Your task to perform on an android device: Add macbook air to the cart on newegg.com Image 0: 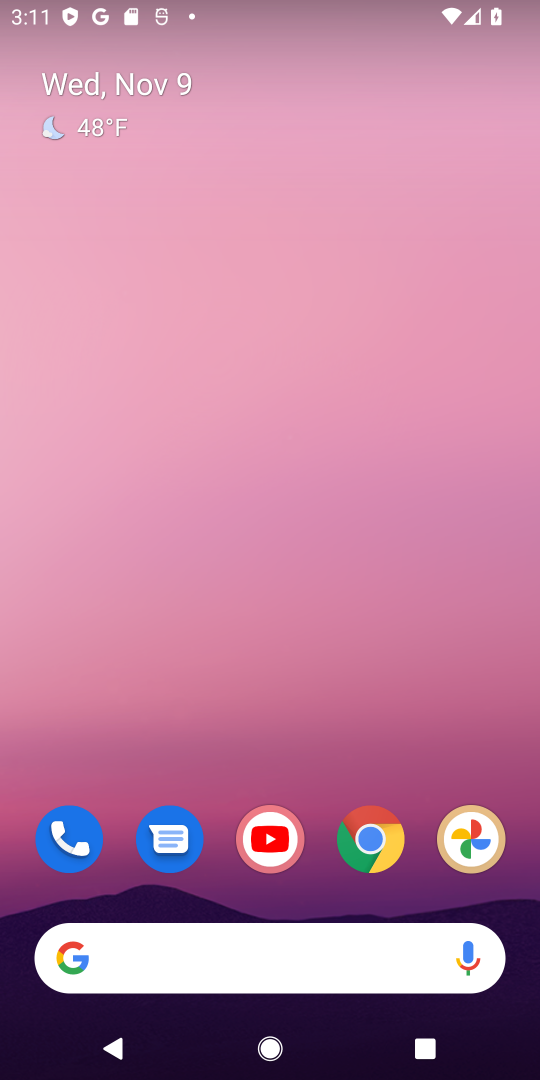
Step 0: drag from (313, 906) to (342, 144)
Your task to perform on an android device: Add macbook air to the cart on newegg.com Image 1: 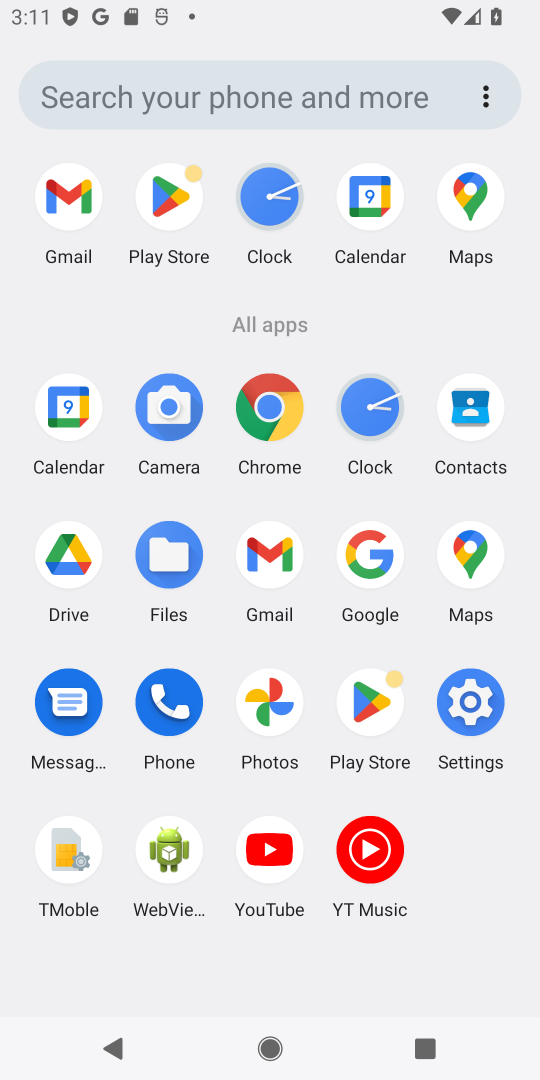
Step 1: click (267, 404)
Your task to perform on an android device: Add macbook air to the cart on newegg.com Image 2: 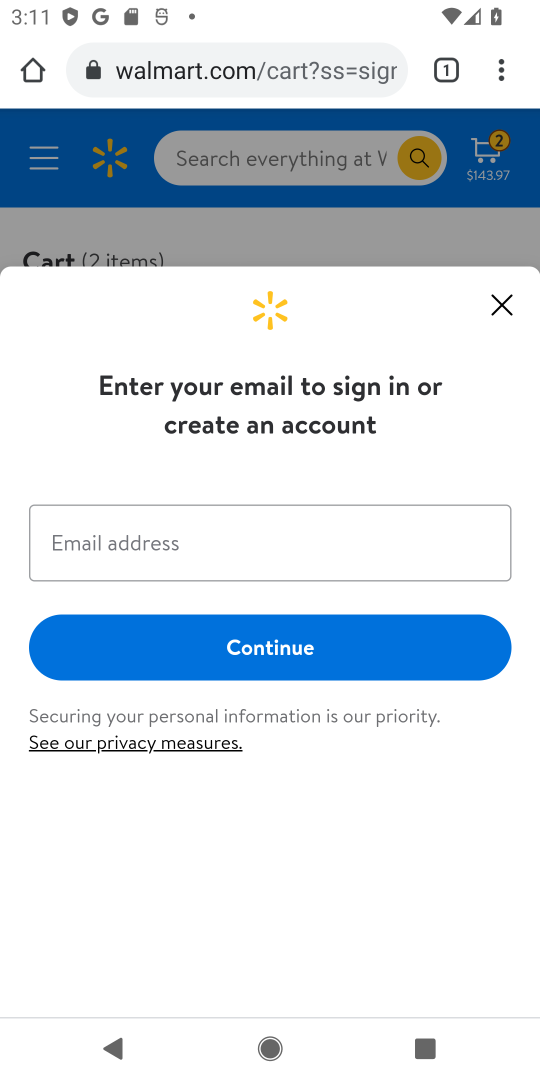
Step 2: click (285, 76)
Your task to perform on an android device: Add macbook air to the cart on newegg.com Image 3: 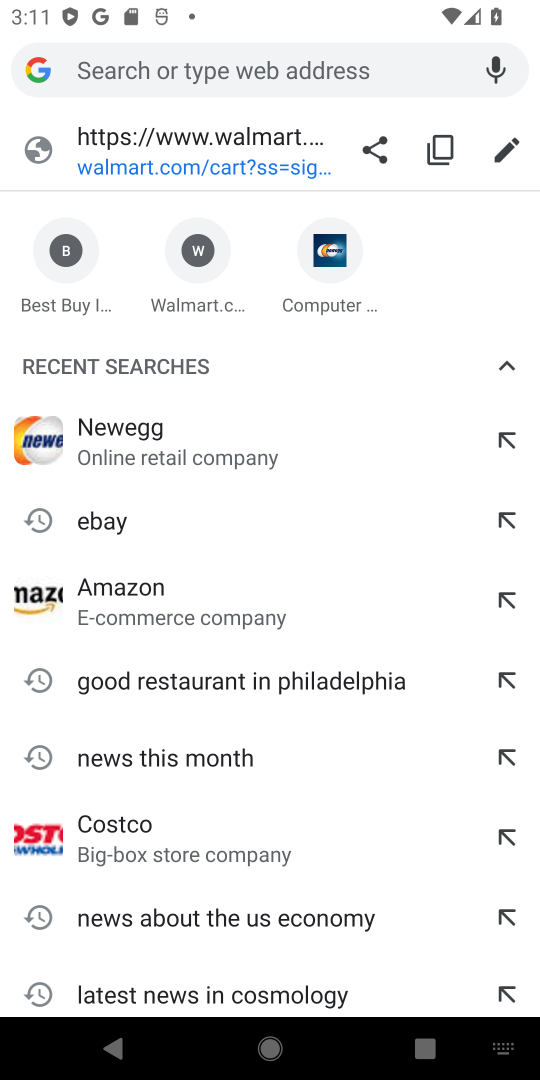
Step 3: type "newegg.com"
Your task to perform on an android device: Add macbook air to the cart on newegg.com Image 4: 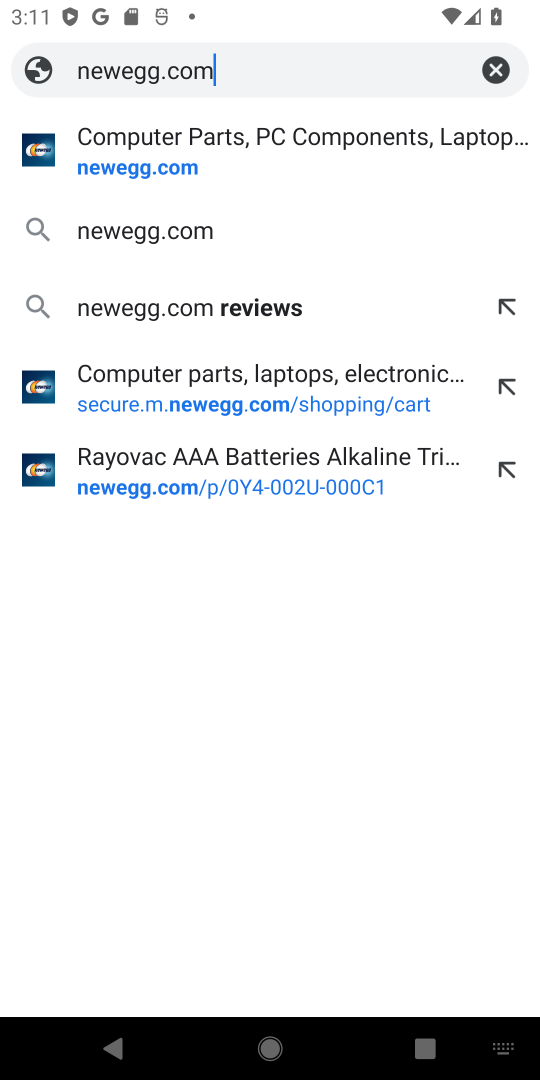
Step 4: press enter
Your task to perform on an android device: Add macbook air to the cart on newegg.com Image 5: 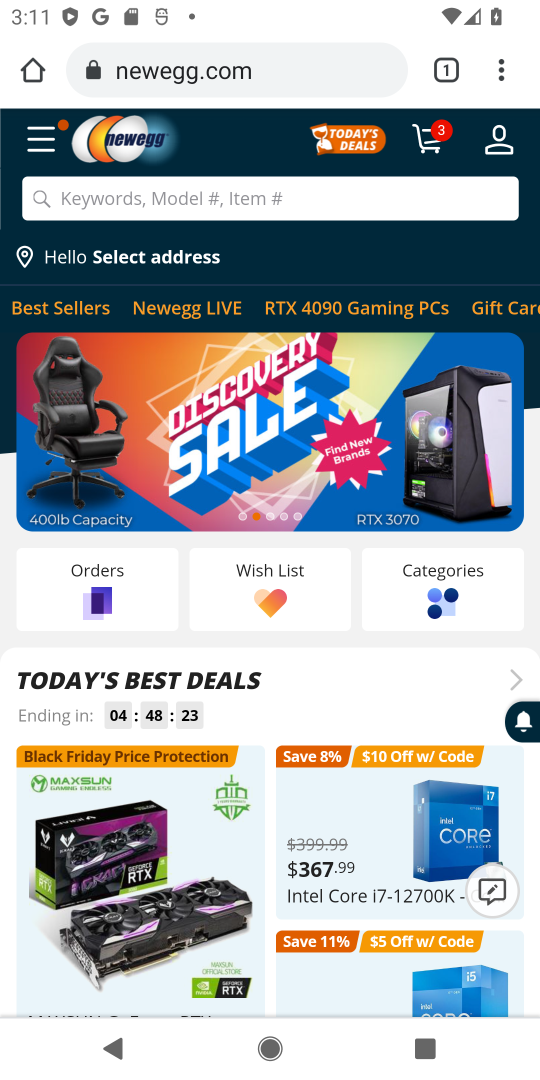
Step 5: click (326, 201)
Your task to perform on an android device: Add macbook air to the cart on newegg.com Image 6: 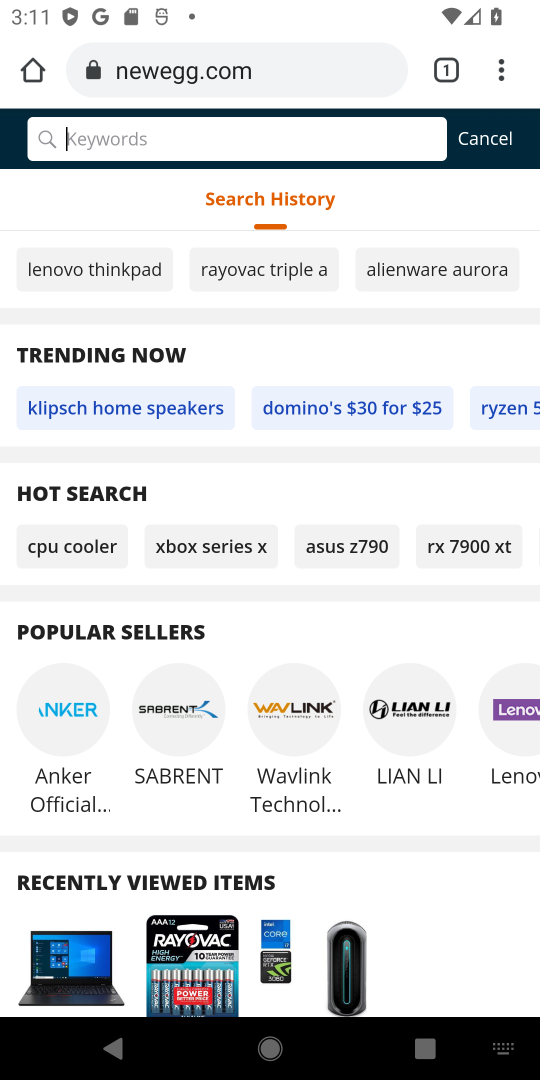
Step 6: type "macbook air"
Your task to perform on an android device: Add macbook air to the cart on newegg.com Image 7: 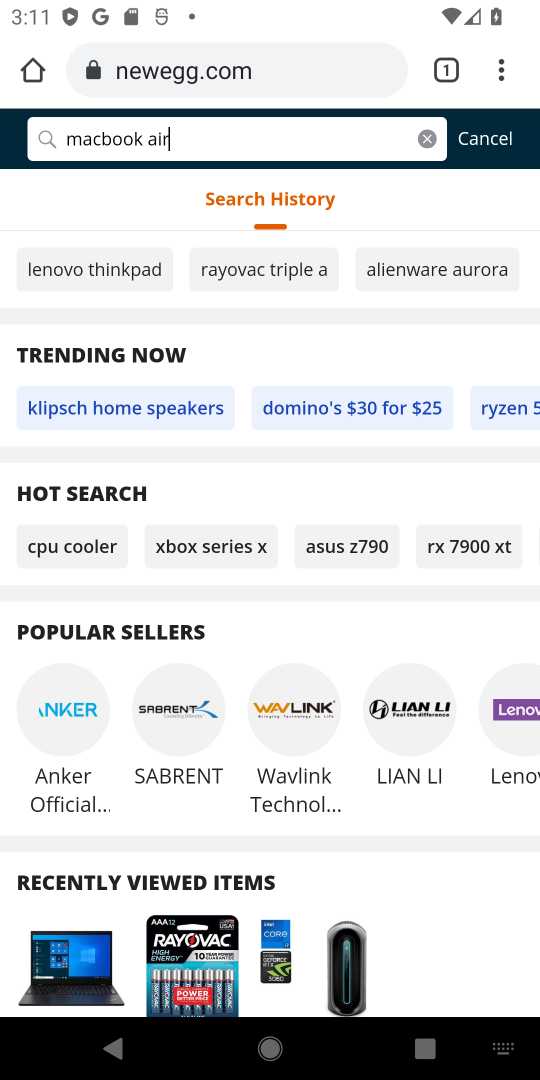
Step 7: press enter
Your task to perform on an android device: Add macbook air to the cart on newegg.com Image 8: 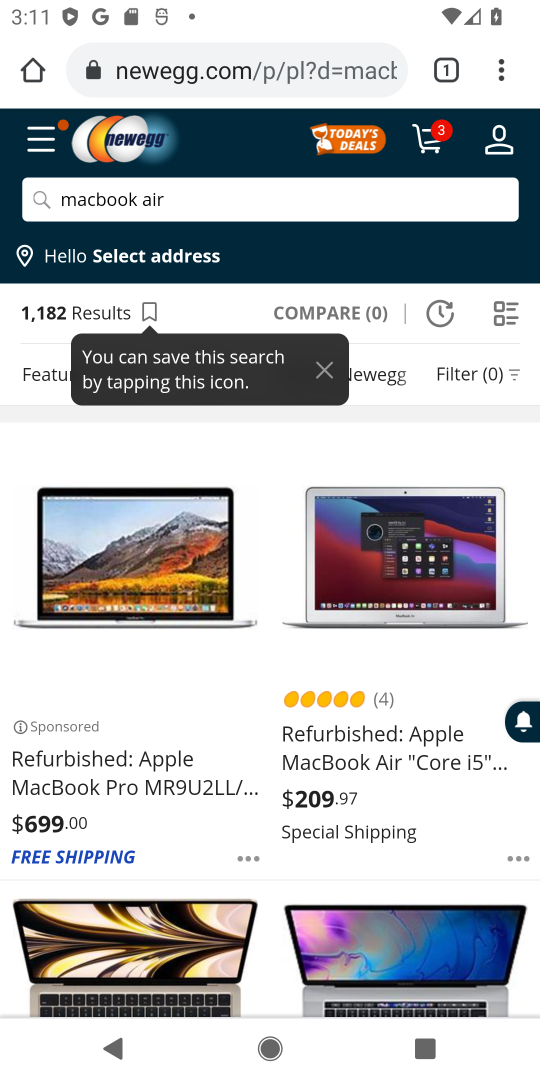
Step 8: click (451, 563)
Your task to perform on an android device: Add macbook air to the cart on newegg.com Image 9: 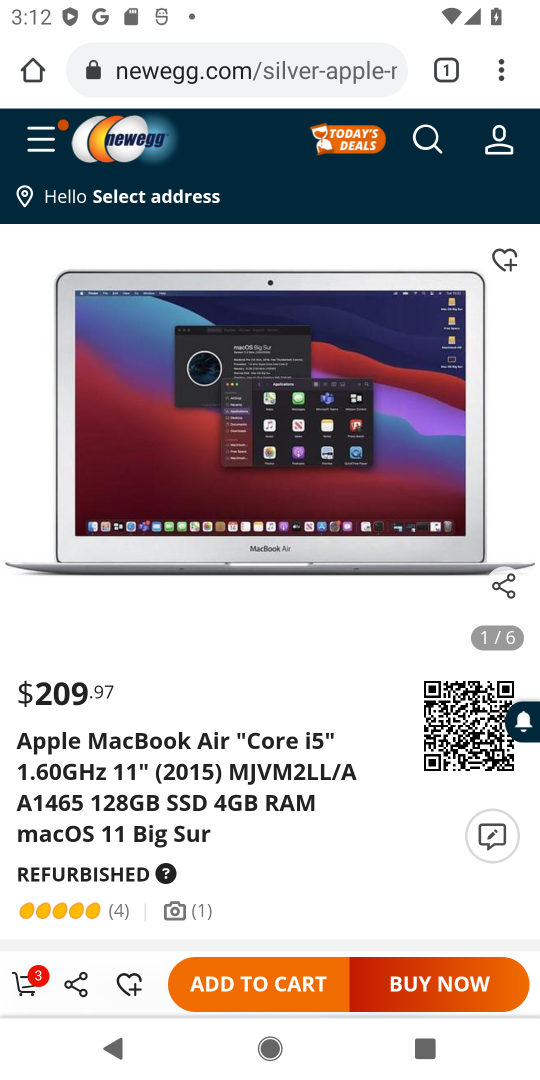
Step 9: click (433, 144)
Your task to perform on an android device: Add macbook air to the cart on newegg.com Image 10: 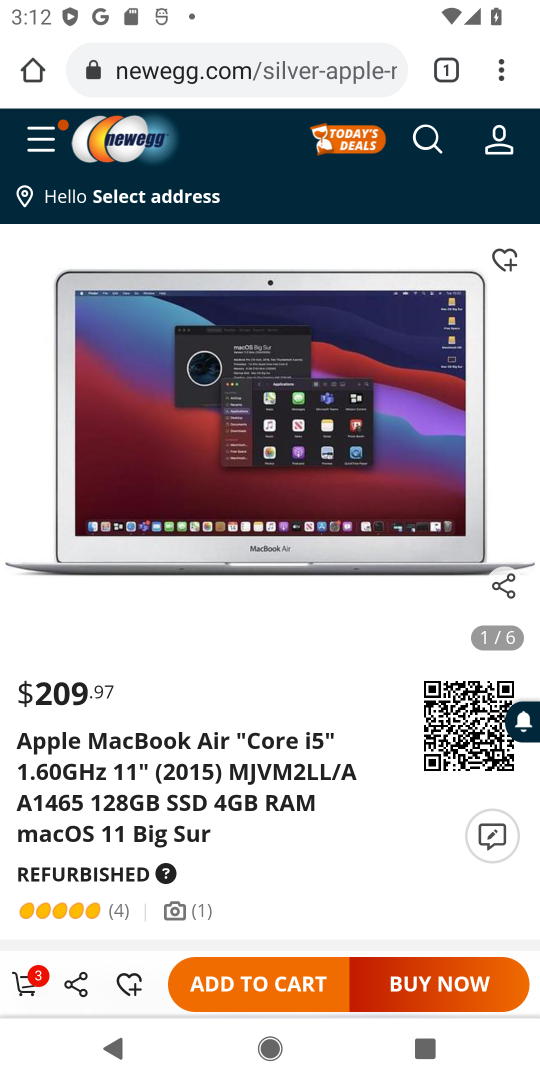
Step 10: click (419, 130)
Your task to perform on an android device: Add macbook air to the cart on newegg.com Image 11: 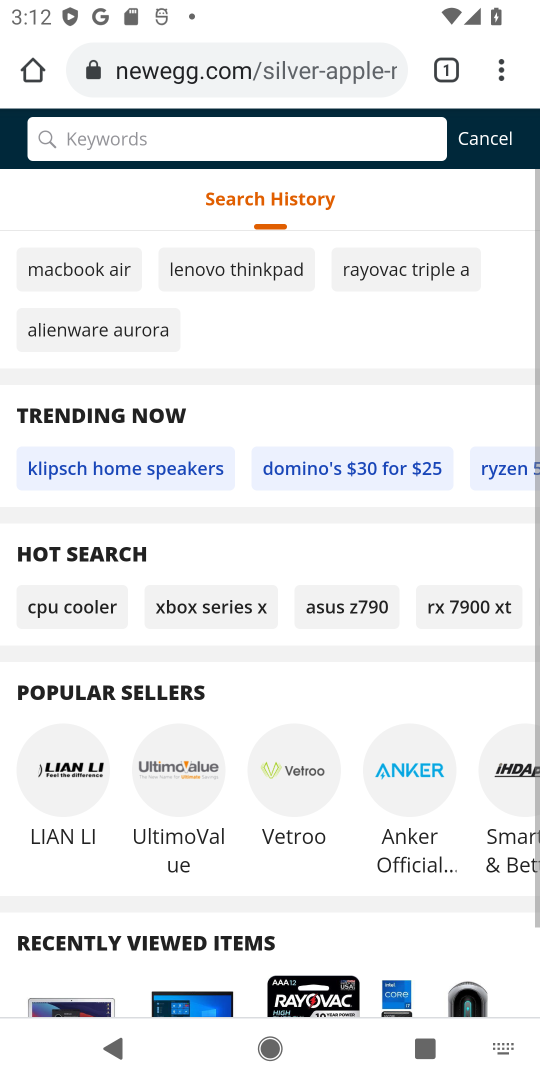
Step 11: click (422, 135)
Your task to perform on an android device: Add macbook air to the cart on newegg.com Image 12: 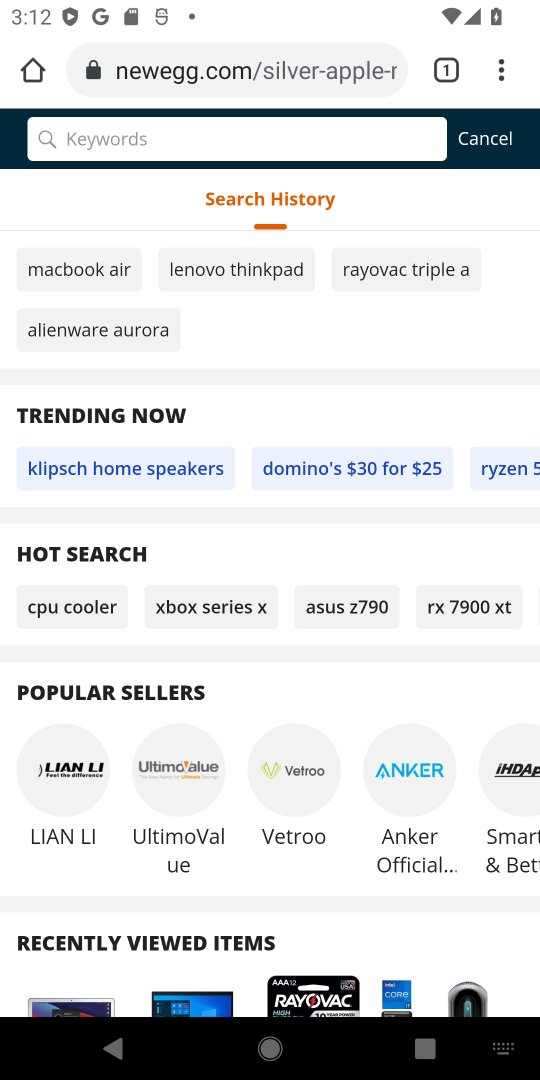
Step 12: type "macbook air"
Your task to perform on an android device: Add macbook air to the cart on newegg.com Image 13: 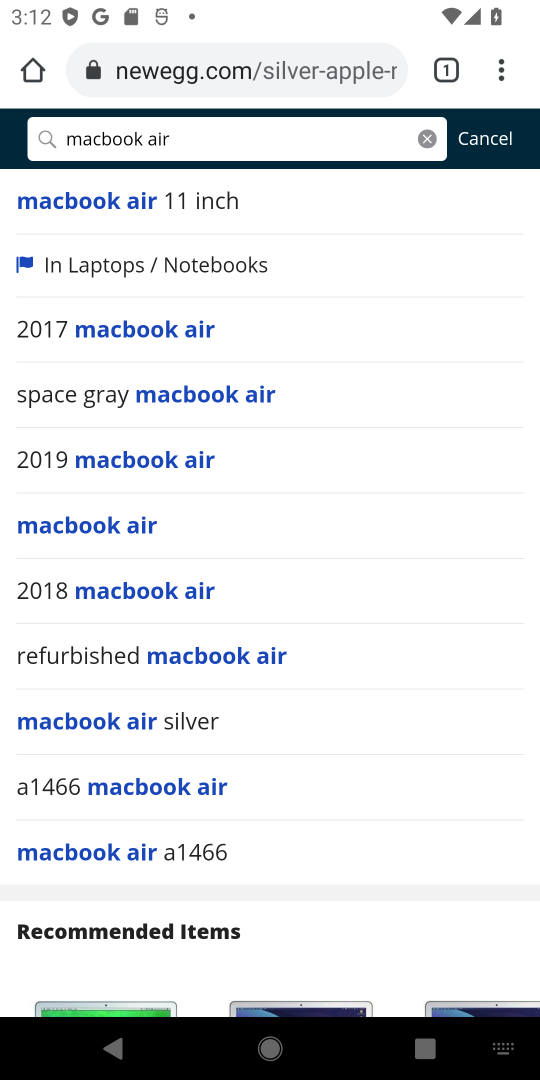
Step 13: press enter
Your task to perform on an android device: Add macbook air to the cart on newegg.com Image 14: 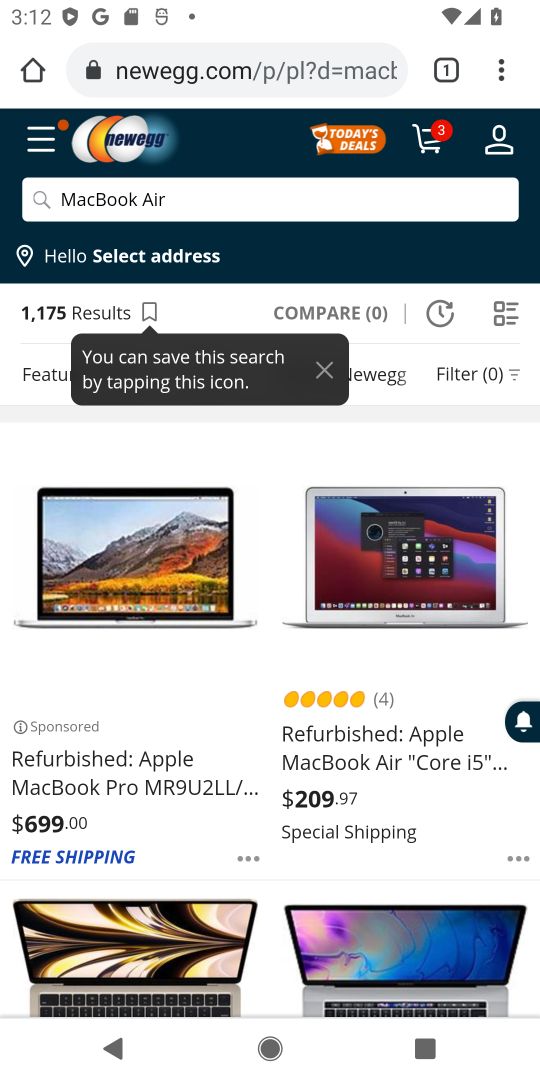
Step 14: click (416, 747)
Your task to perform on an android device: Add macbook air to the cart on newegg.com Image 15: 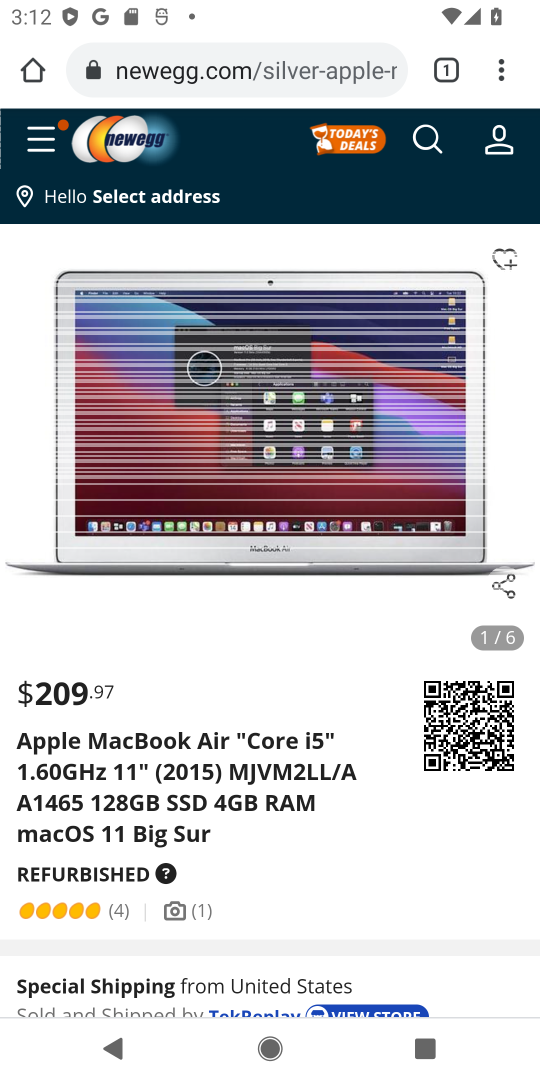
Step 15: drag from (302, 859) to (302, 323)
Your task to perform on an android device: Add macbook air to the cart on newegg.com Image 16: 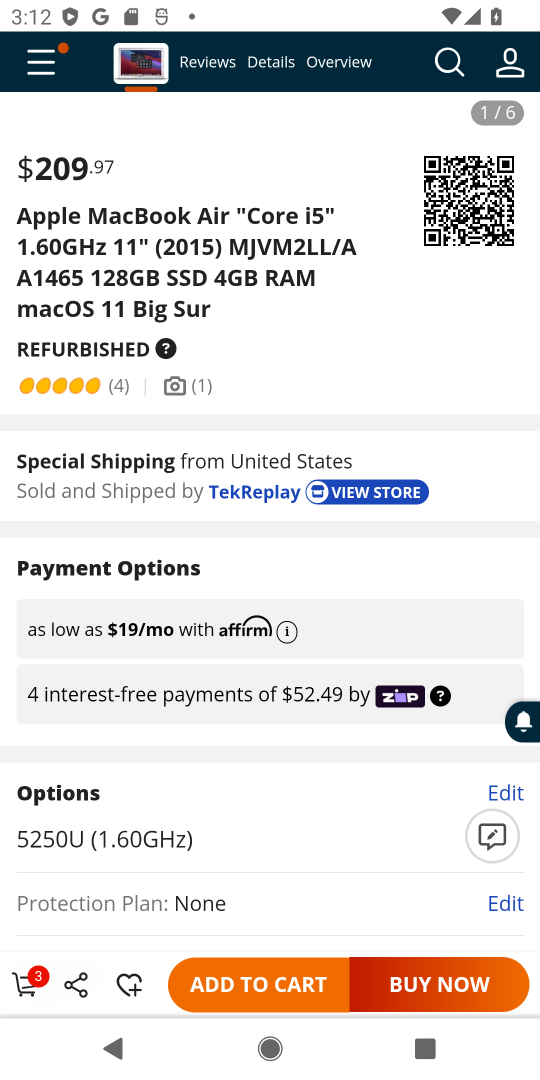
Step 16: click (271, 977)
Your task to perform on an android device: Add macbook air to the cart on newegg.com Image 17: 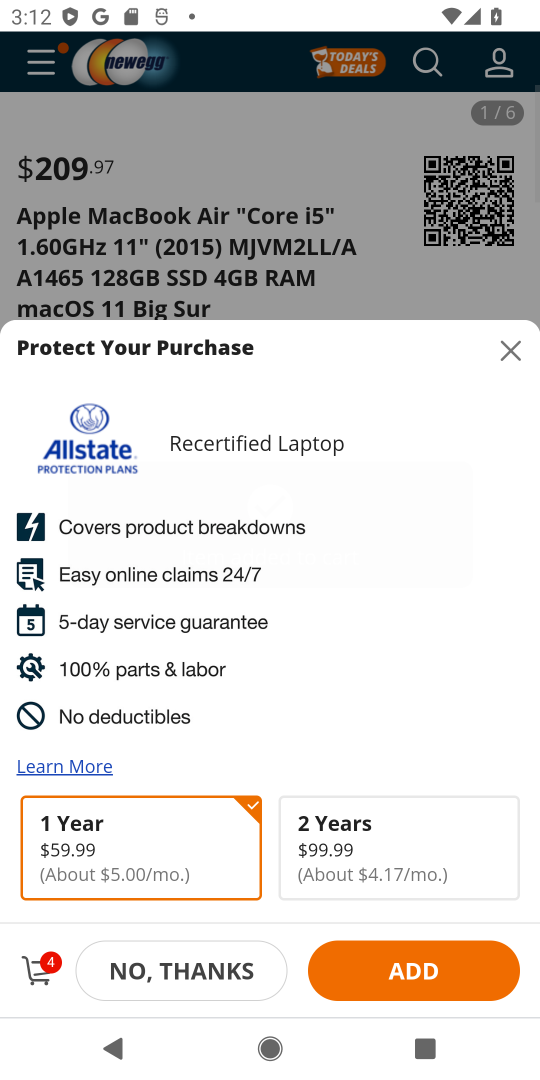
Step 17: task complete